Your task to perform on an android device: change the clock display to digital Image 0: 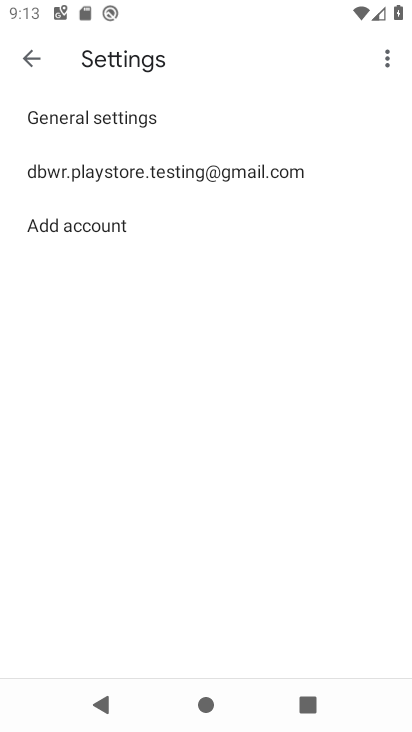
Step 0: press home button
Your task to perform on an android device: change the clock display to digital Image 1: 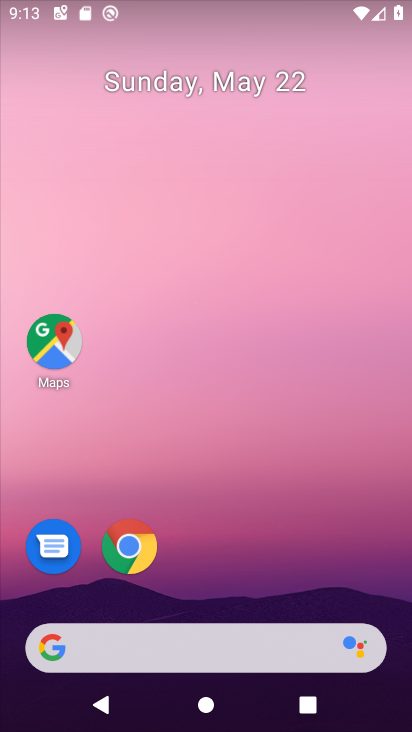
Step 1: drag from (388, 578) to (386, 205)
Your task to perform on an android device: change the clock display to digital Image 2: 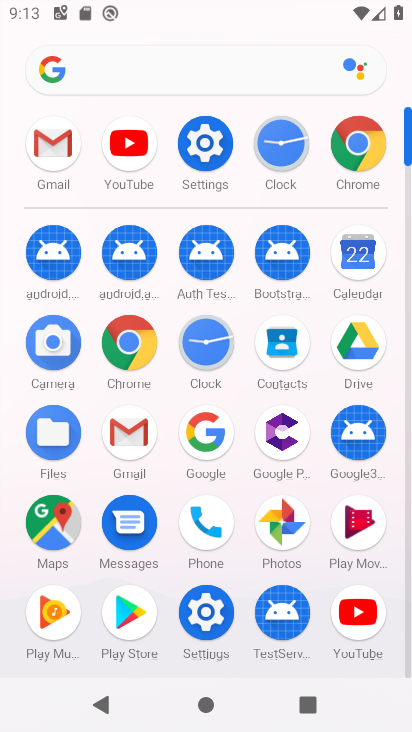
Step 2: click (227, 346)
Your task to perform on an android device: change the clock display to digital Image 3: 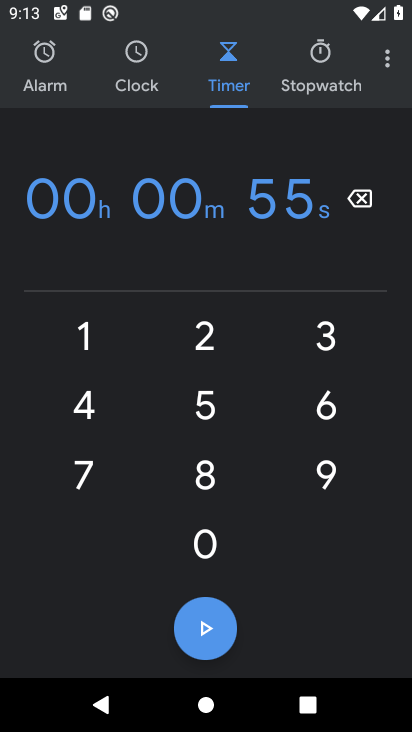
Step 3: click (388, 70)
Your task to perform on an android device: change the clock display to digital Image 4: 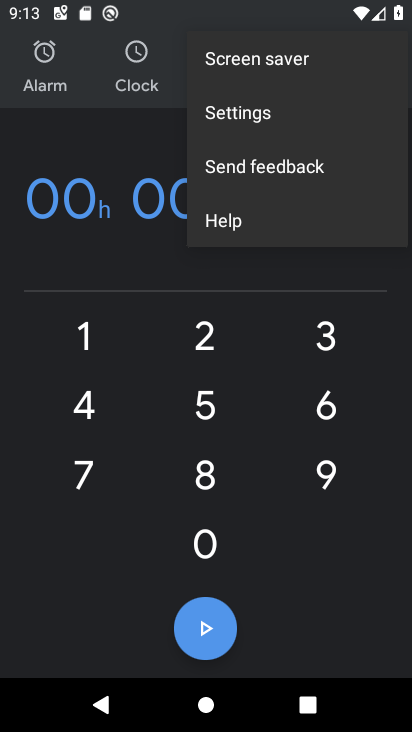
Step 4: click (317, 122)
Your task to perform on an android device: change the clock display to digital Image 5: 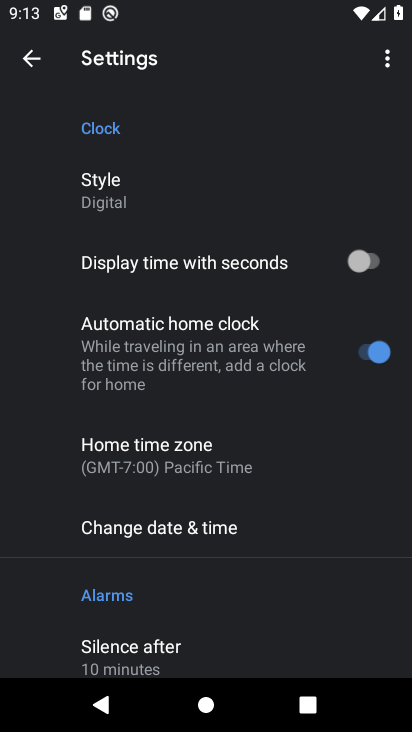
Step 5: drag from (308, 536) to (307, 389)
Your task to perform on an android device: change the clock display to digital Image 6: 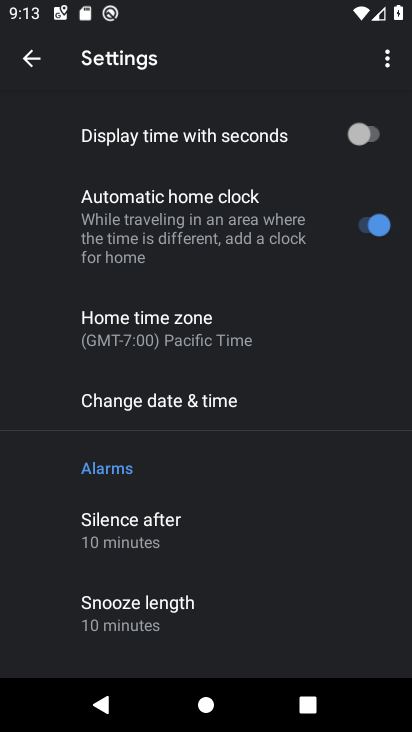
Step 6: drag from (294, 517) to (294, 429)
Your task to perform on an android device: change the clock display to digital Image 7: 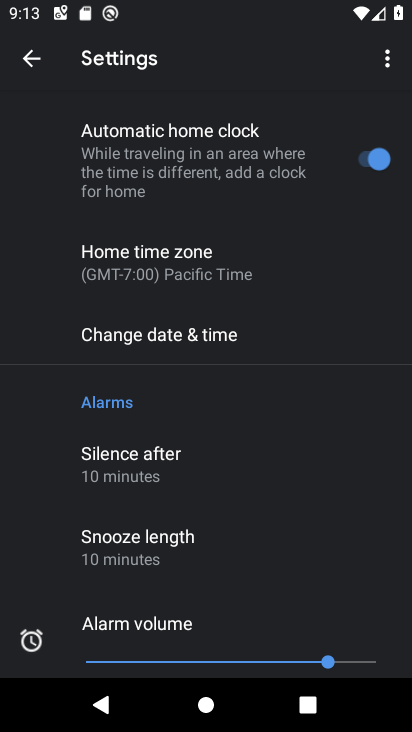
Step 7: drag from (308, 545) to (307, 460)
Your task to perform on an android device: change the clock display to digital Image 8: 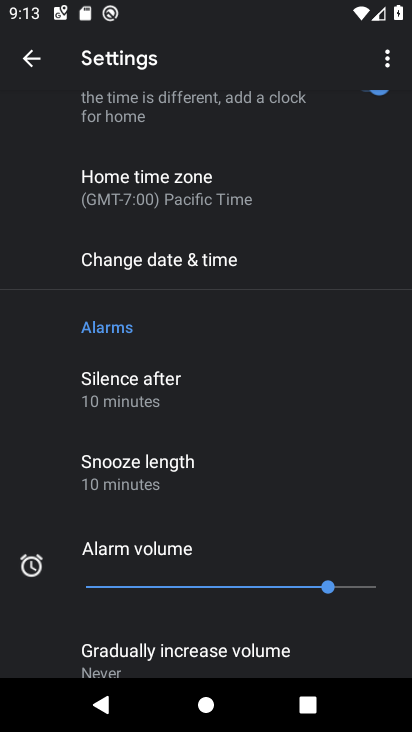
Step 8: drag from (303, 581) to (303, 505)
Your task to perform on an android device: change the clock display to digital Image 9: 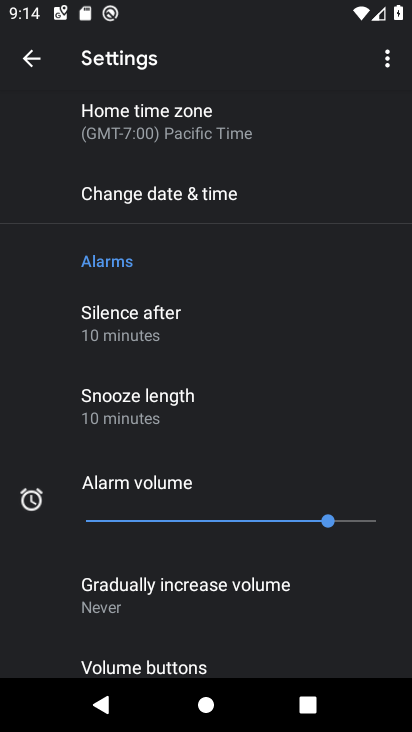
Step 9: drag from (305, 590) to (304, 509)
Your task to perform on an android device: change the clock display to digital Image 10: 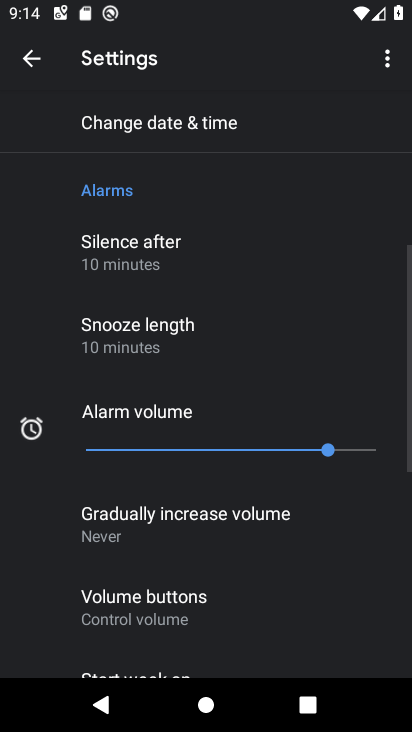
Step 10: drag from (310, 593) to (316, 526)
Your task to perform on an android device: change the clock display to digital Image 11: 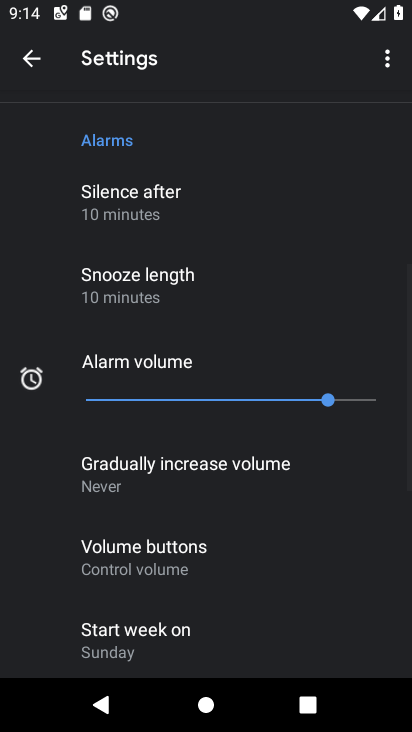
Step 11: drag from (311, 571) to (311, 507)
Your task to perform on an android device: change the clock display to digital Image 12: 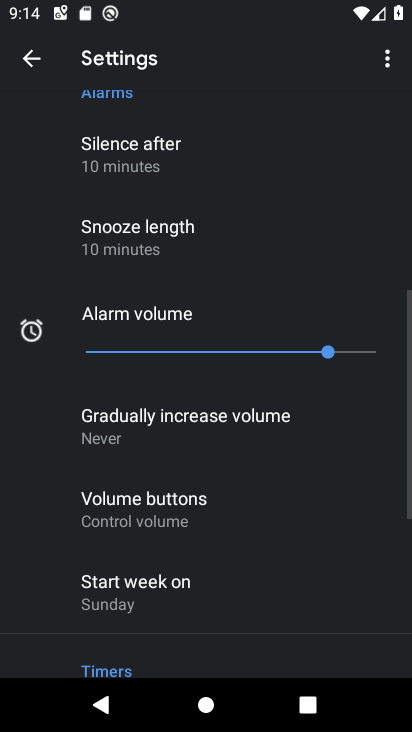
Step 12: drag from (318, 597) to (322, 525)
Your task to perform on an android device: change the clock display to digital Image 13: 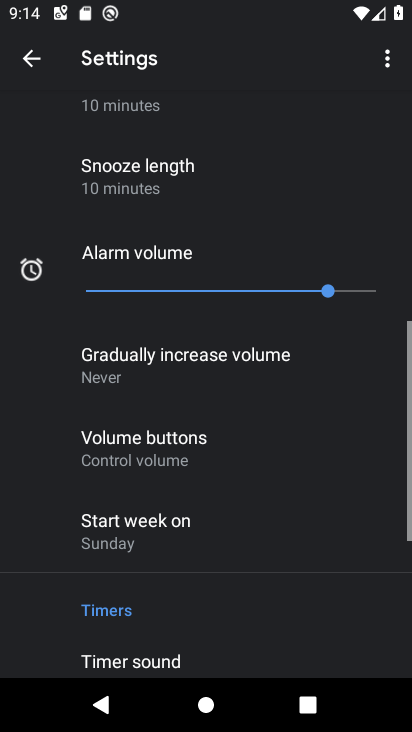
Step 13: drag from (324, 569) to (324, 505)
Your task to perform on an android device: change the clock display to digital Image 14: 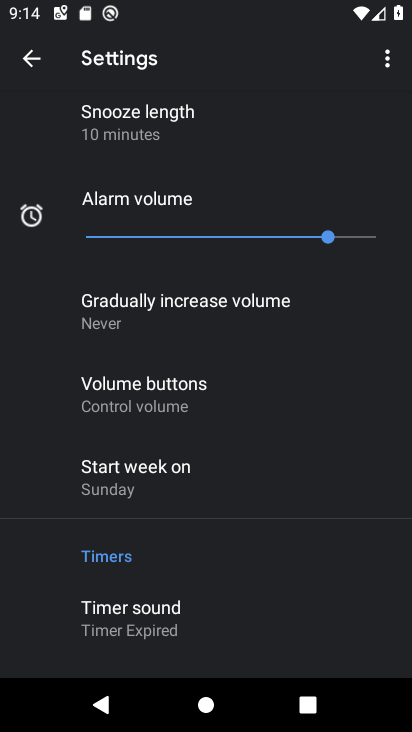
Step 14: drag from (327, 554) to (327, 472)
Your task to perform on an android device: change the clock display to digital Image 15: 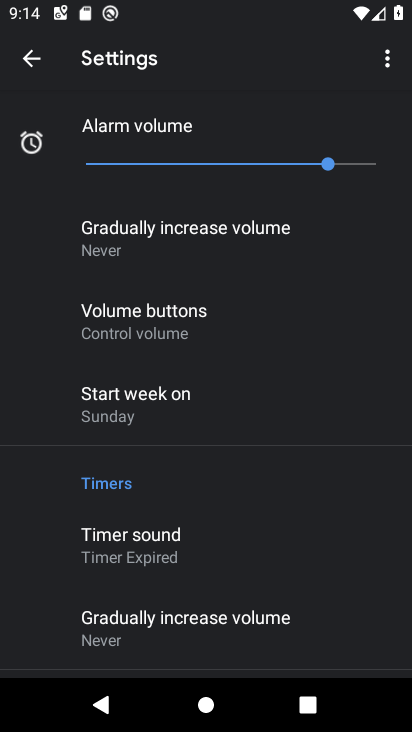
Step 15: drag from (329, 514) to (334, 454)
Your task to perform on an android device: change the clock display to digital Image 16: 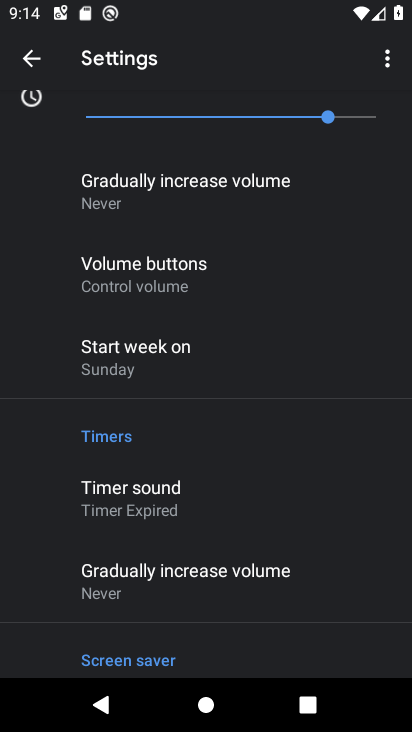
Step 16: click (326, 503)
Your task to perform on an android device: change the clock display to digital Image 17: 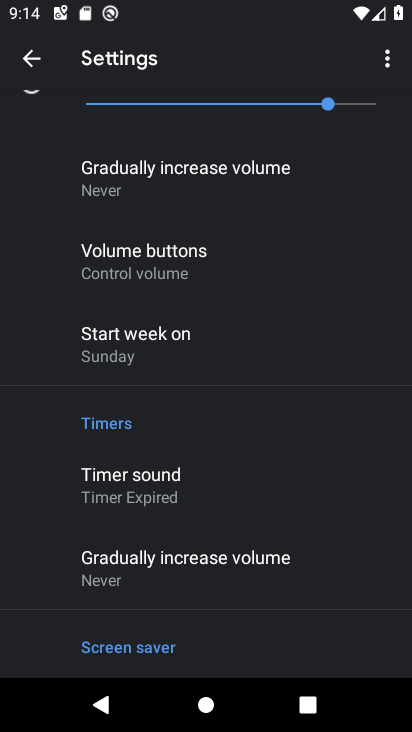
Step 17: task complete